Your task to perform on an android device: Go to Yahoo.com Image 0: 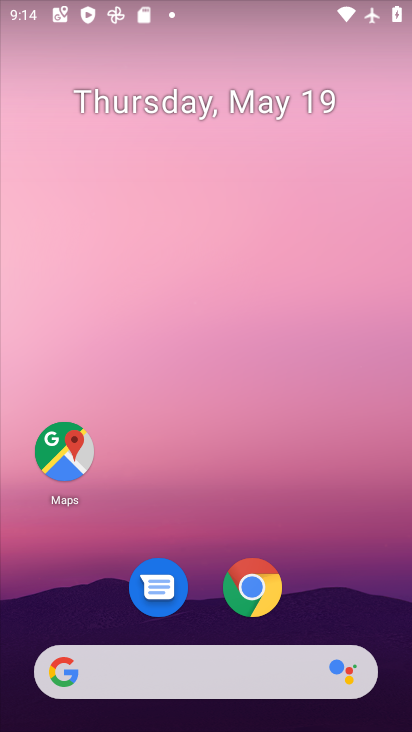
Step 0: drag from (365, 545) to (319, 62)
Your task to perform on an android device: Go to Yahoo.com Image 1: 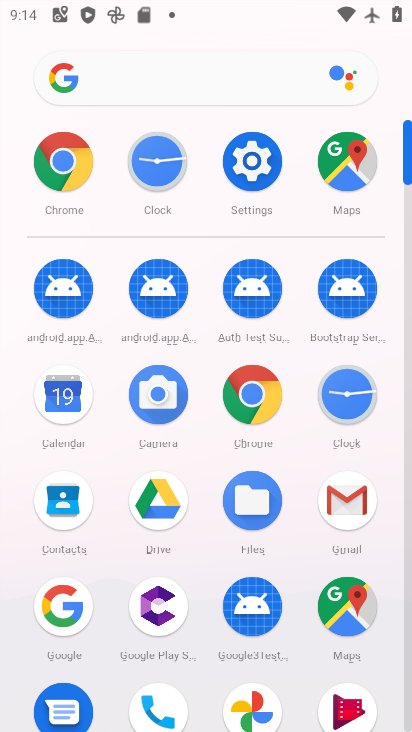
Step 1: click (251, 394)
Your task to perform on an android device: Go to Yahoo.com Image 2: 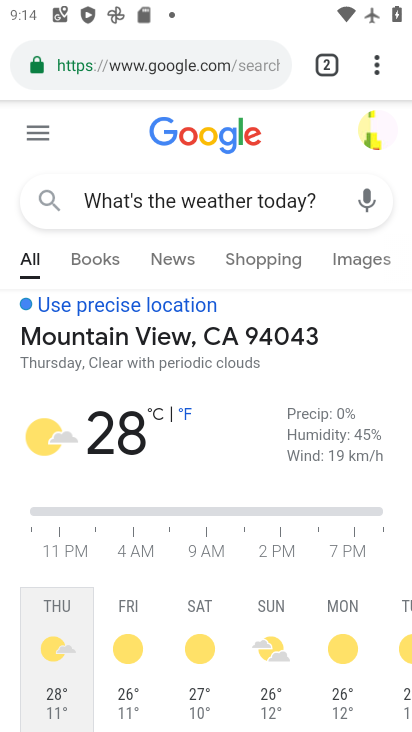
Step 2: click (169, 65)
Your task to perform on an android device: Go to Yahoo.com Image 3: 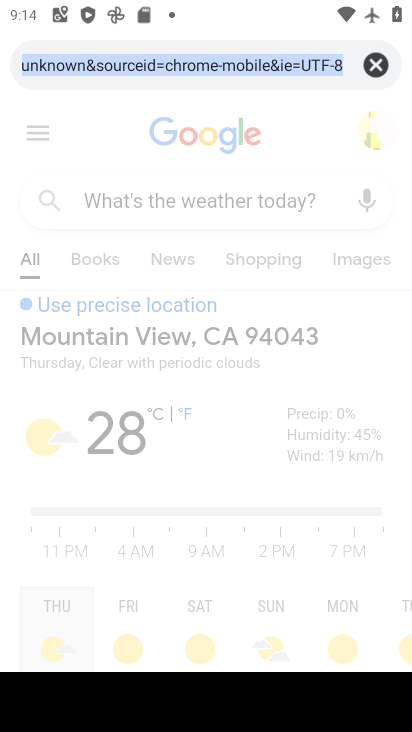
Step 3: click (382, 66)
Your task to perform on an android device: Go to Yahoo.com Image 4: 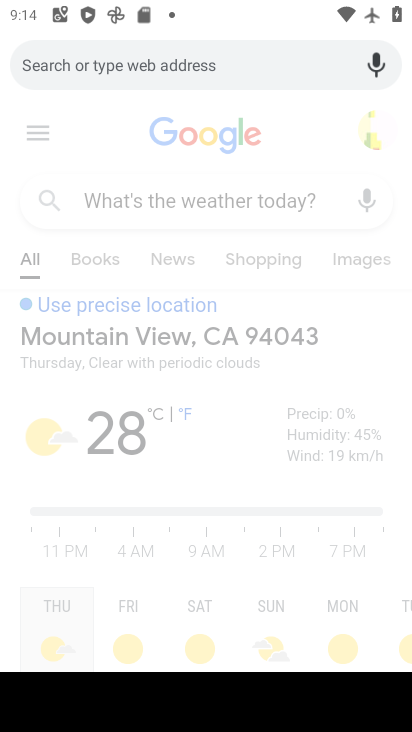
Step 4: type "Yahoo.com"
Your task to perform on an android device: Go to Yahoo.com Image 5: 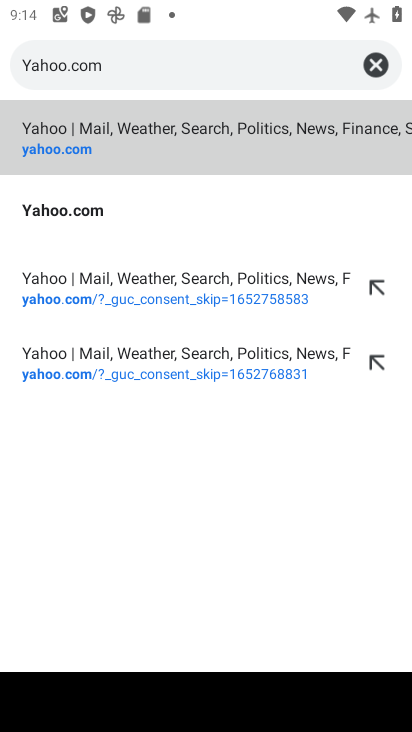
Step 5: click (133, 118)
Your task to perform on an android device: Go to Yahoo.com Image 6: 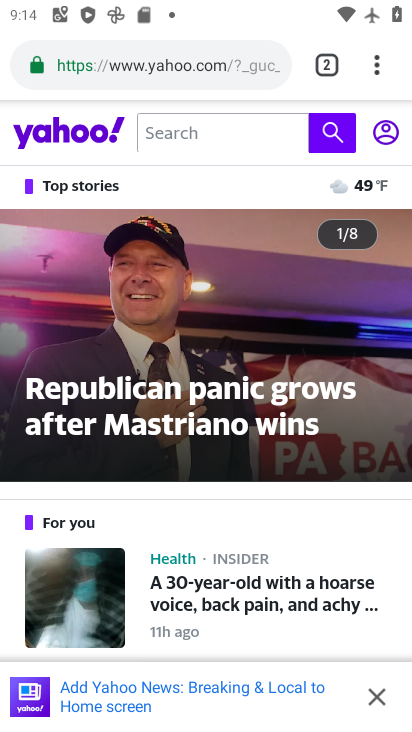
Step 6: task complete